Your task to perform on an android device: open app "Gmail" (install if not already installed) Image 0: 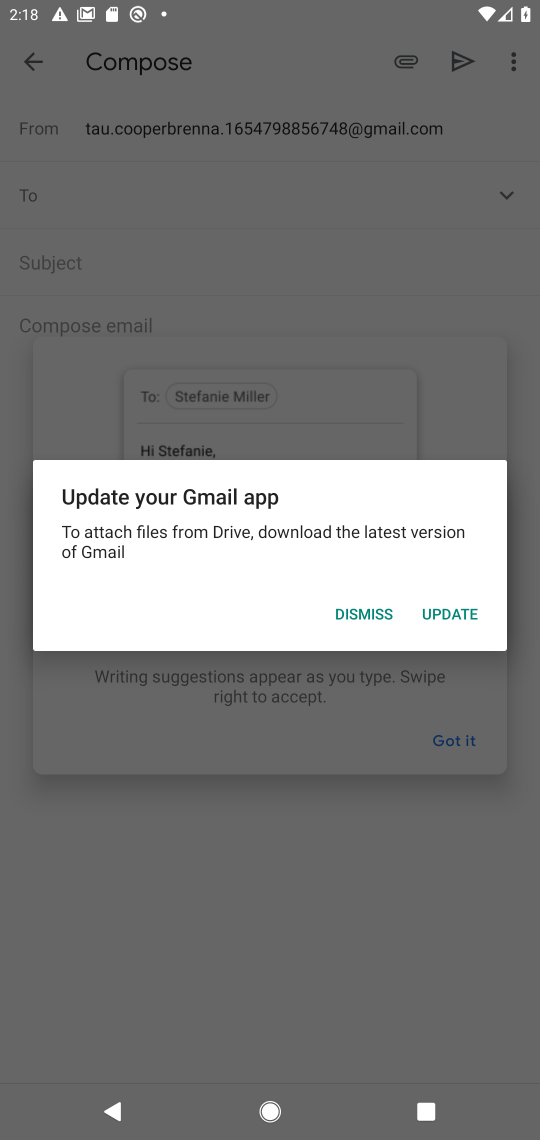
Step 0: press home button
Your task to perform on an android device: open app "Gmail" (install if not already installed) Image 1: 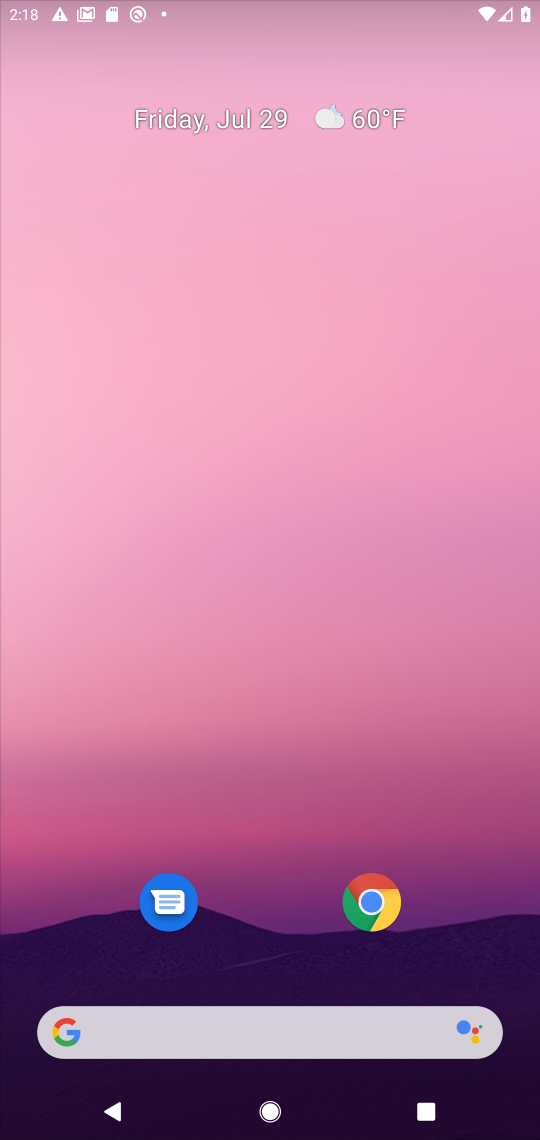
Step 1: drag from (228, 928) to (178, 265)
Your task to perform on an android device: open app "Gmail" (install if not already installed) Image 2: 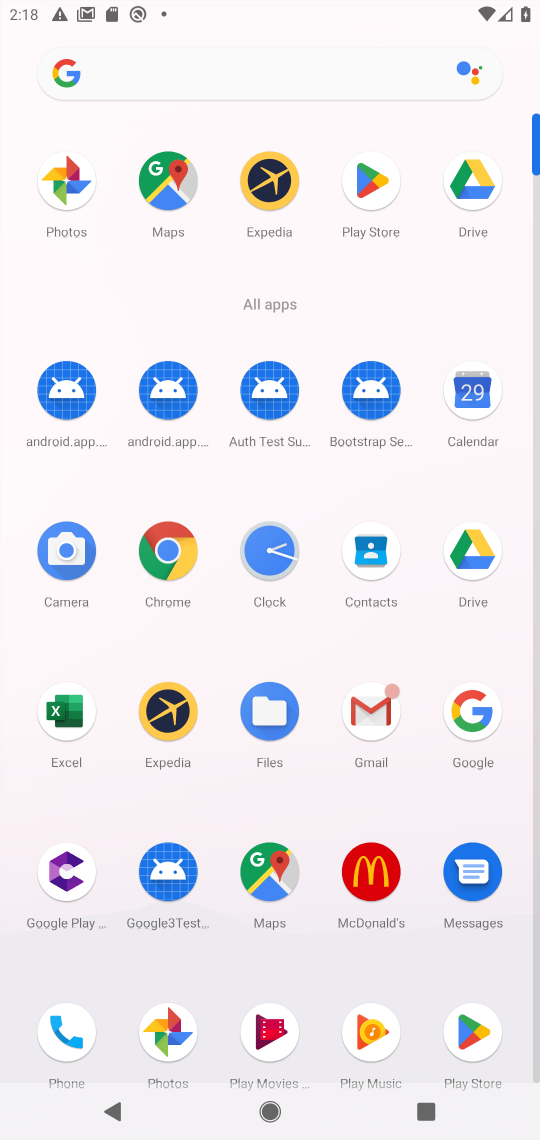
Step 2: click (379, 722)
Your task to perform on an android device: open app "Gmail" (install if not already installed) Image 3: 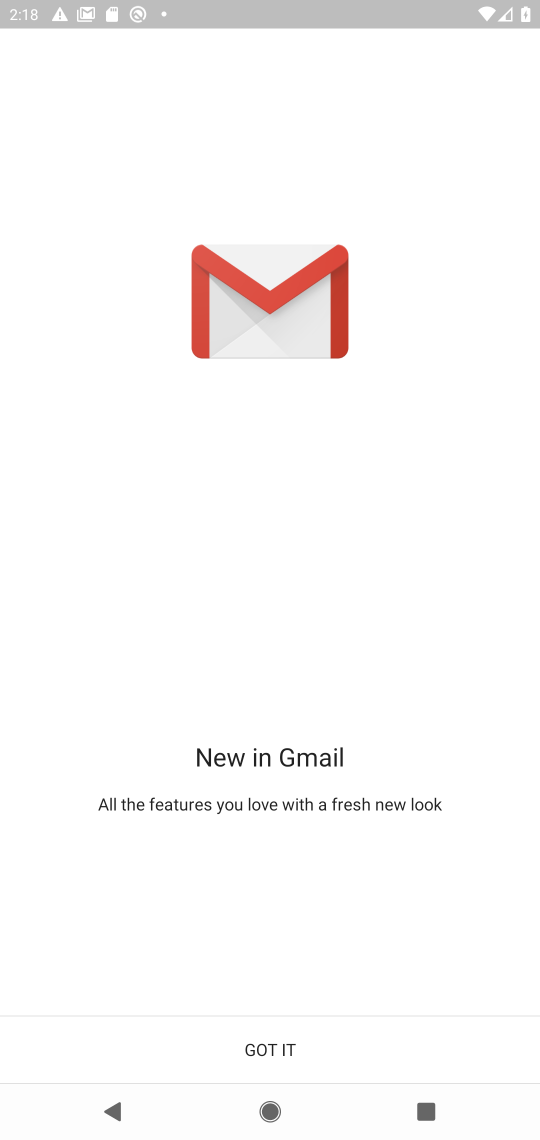
Step 3: click (229, 1046)
Your task to perform on an android device: open app "Gmail" (install if not already installed) Image 4: 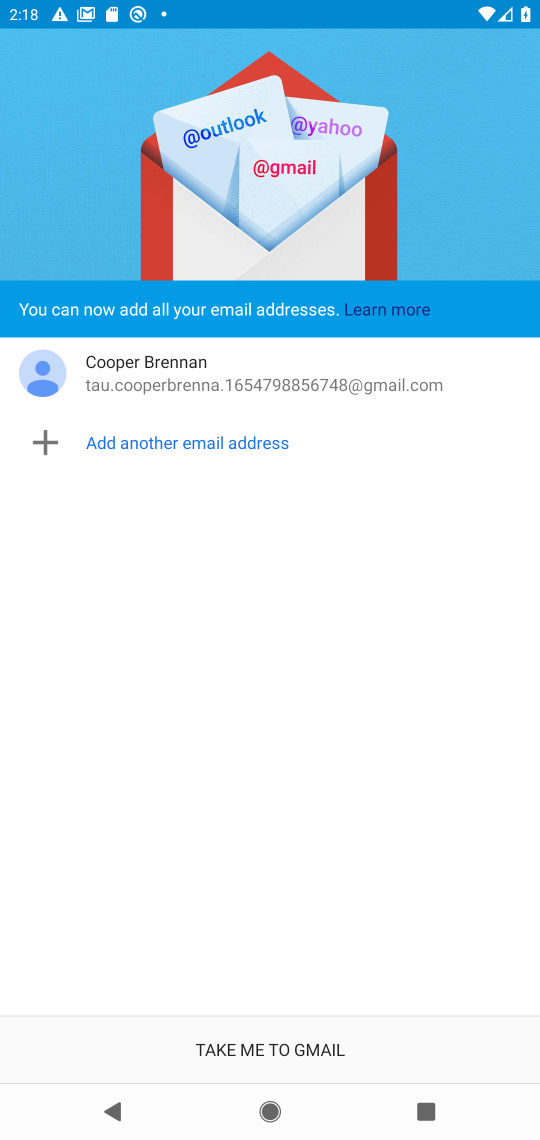
Step 4: click (236, 1043)
Your task to perform on an android device: open app "Gmail" (install if not already installed) Image 5: 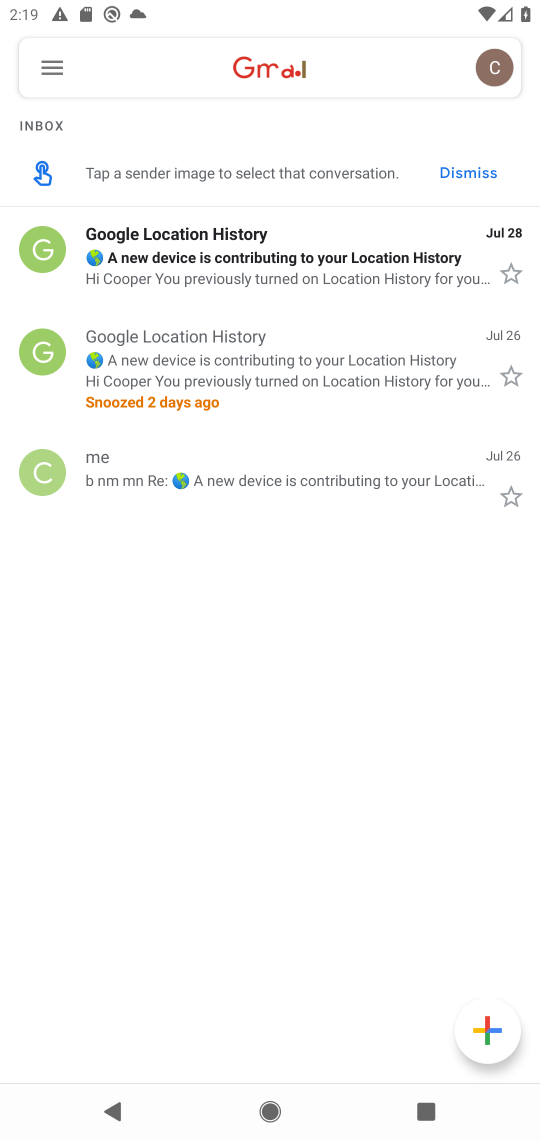
Step 5: task complete